Your task to perform on an android device: Open the map Image 0: 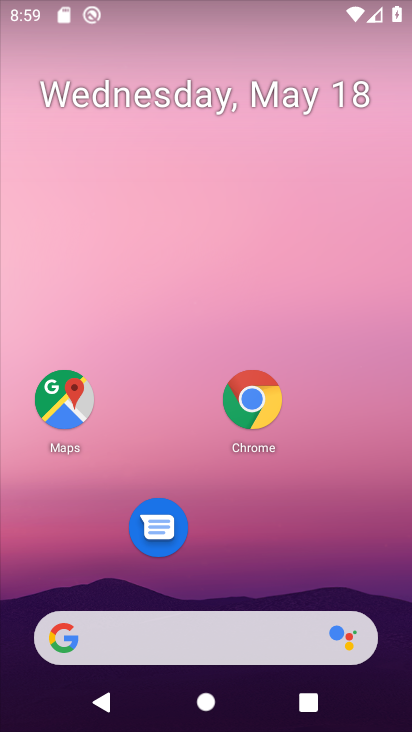
Step 0: press home button
Your task to perform on an android device: Open the map Image 1: 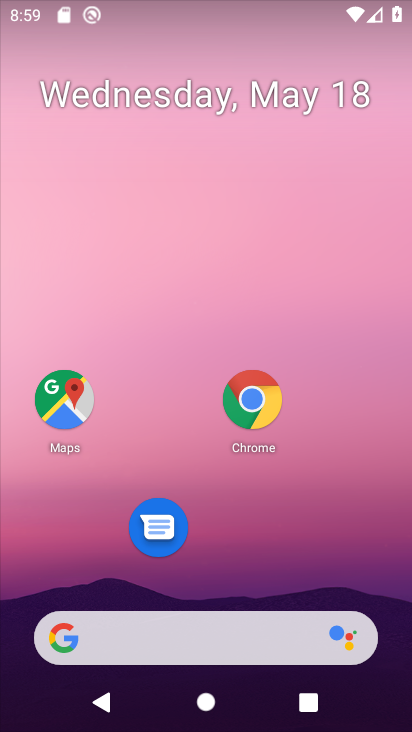
Step 1: click (76, 398)
Your task to perform on an android device: Open the map Image 2: 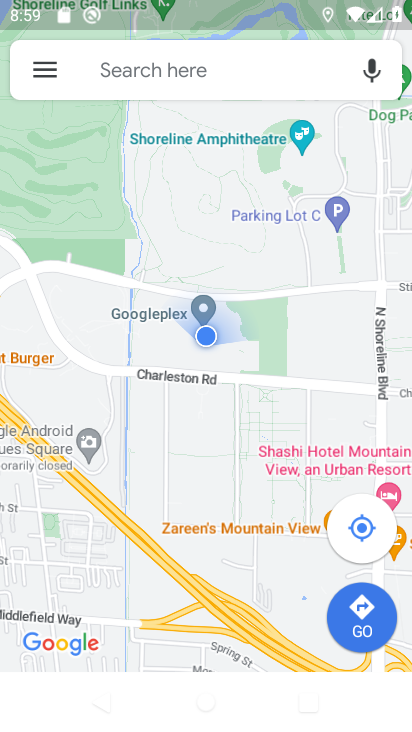
Step 2: click (72, 396)
Your task to perform on an android device: Open the map Image 3: 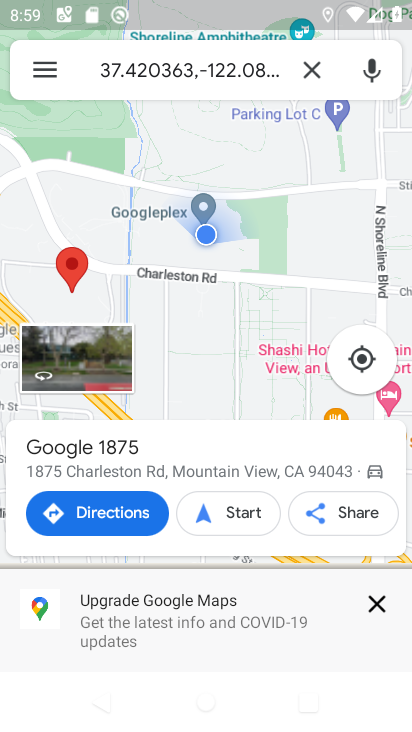
Step 3: click (61, 455)
Your task to perform on an android device: Open the map Image 4: 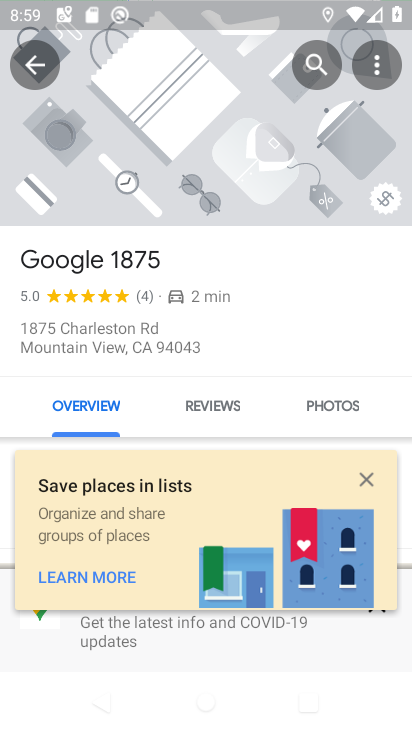
Step 4: click (69, 387)
Your task to perform on an android device: Open the map Image 5: 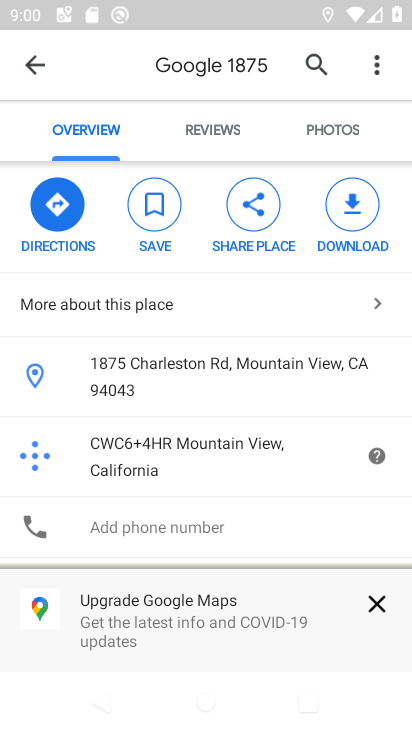
Step 5: task complete